Your task to perform on an android device: Go to location settings Image 0: 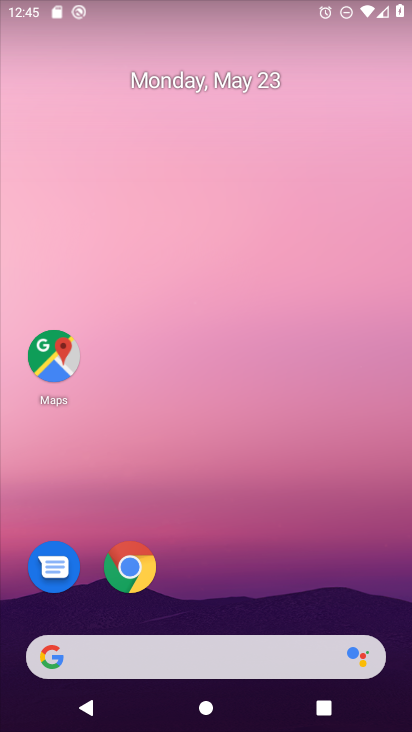
Step 0: drag from (181, 390) to (153, 127)
Your task to perform on an android device: Go to location settings Image 1: 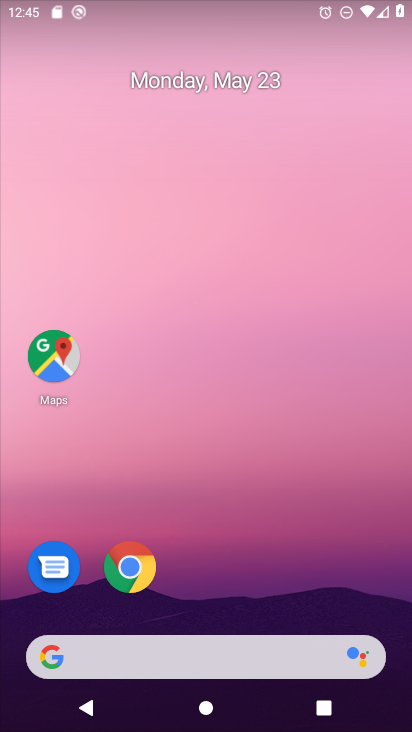
Step 1: drag from (206, 610) to (209, 60)
Your task to perform on an android device: Go to location settings Image 2: 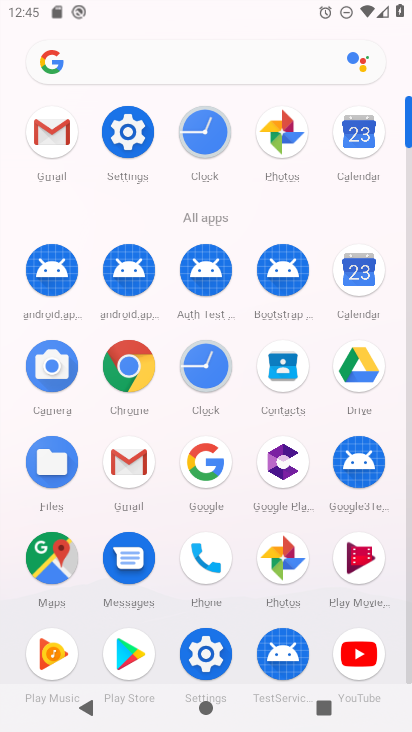
Step 2: click (135, 125)
Your task to perform on an android device: Go to location settings Image 3: 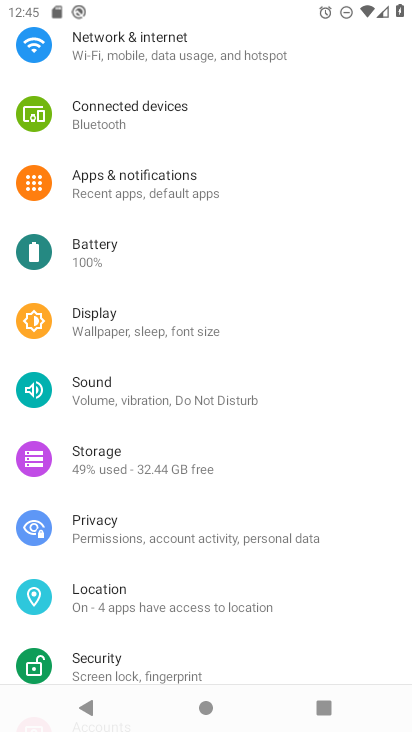
Step 3: click (137, 588)
Your task to perform on an android device: Go to location settings Image 4: 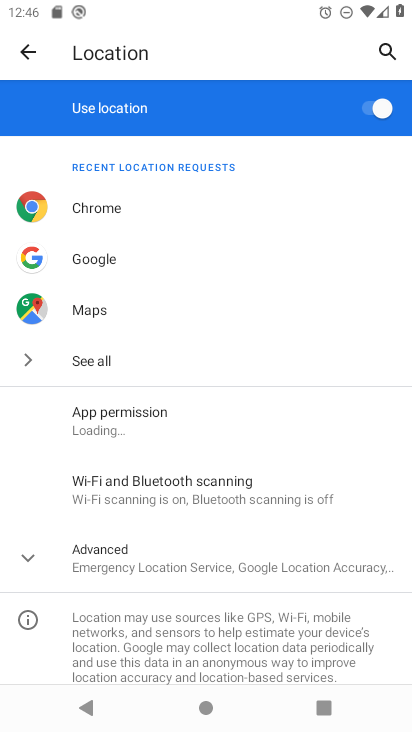
Step 4: task complete